Your task to perform on an android device: change alarm snooze length Image 0: 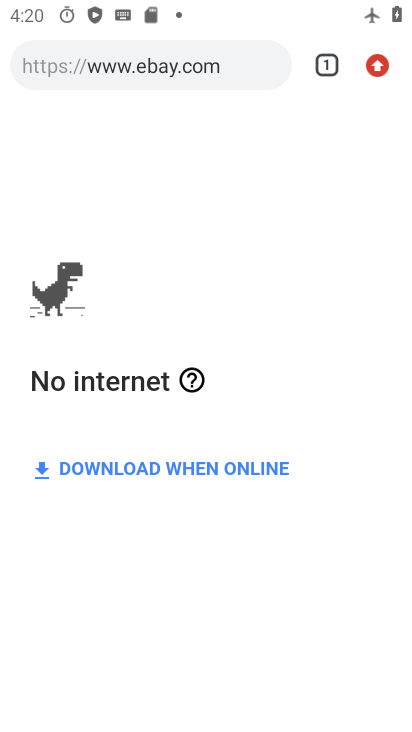
Step 0: press home button
Your task to perform on an android device: change alarm snooze length Image 1: 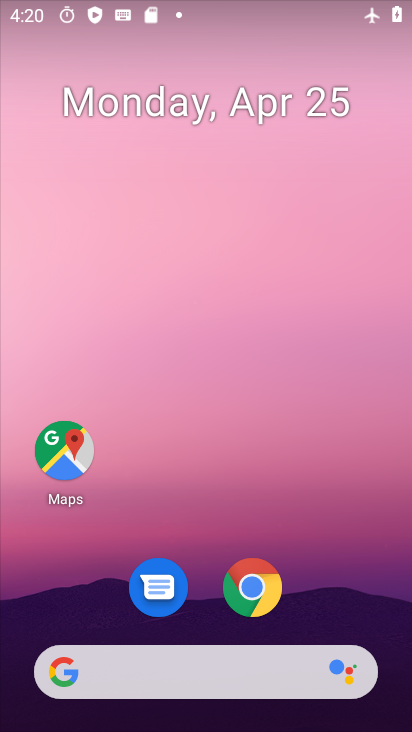
Step 1: drag from (332, 441) to (265, 27)
Your task to perform on an android device: change alarm snooze length Image 2: 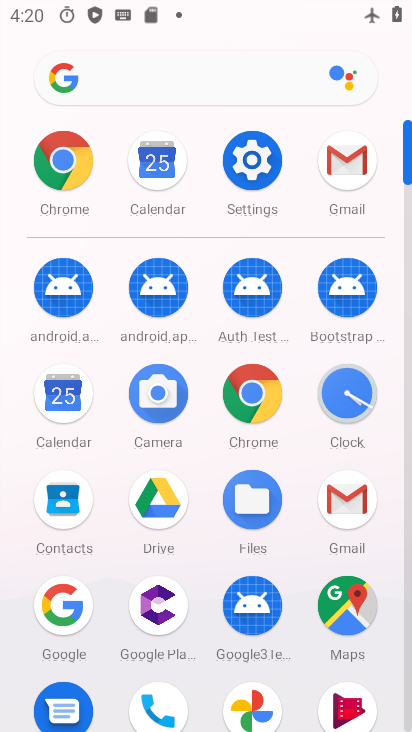
Step 2: click (353, 410)
Your task to perform on an android device: change alarm snooze length Image 3: 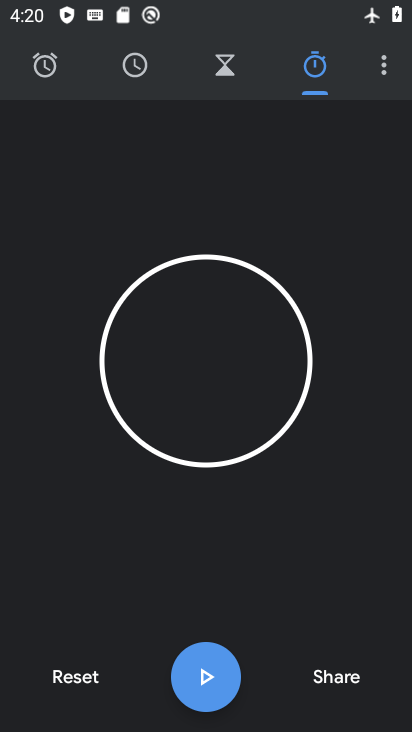
Step 3: click (382, 64)
Your task to perform on an android device: change alarm snooze length Image 4: 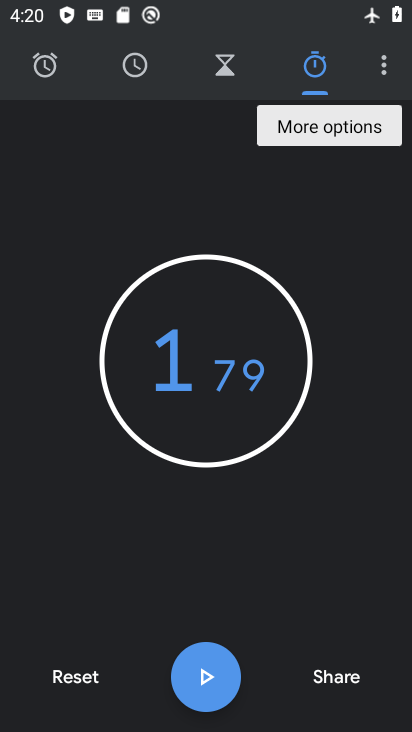
Step 4: click (377, 67)
Your task to perform on an android device: change alarm snooze length Image 5: 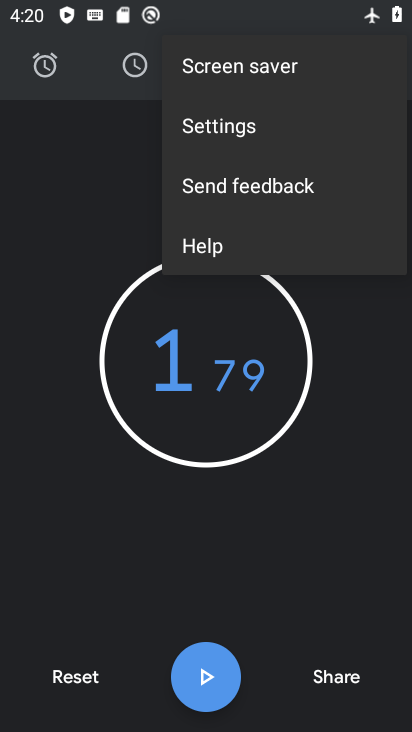
Step 5: click (279, 131)
Your task to perform on an android device: change alarm snooze length Image 6: 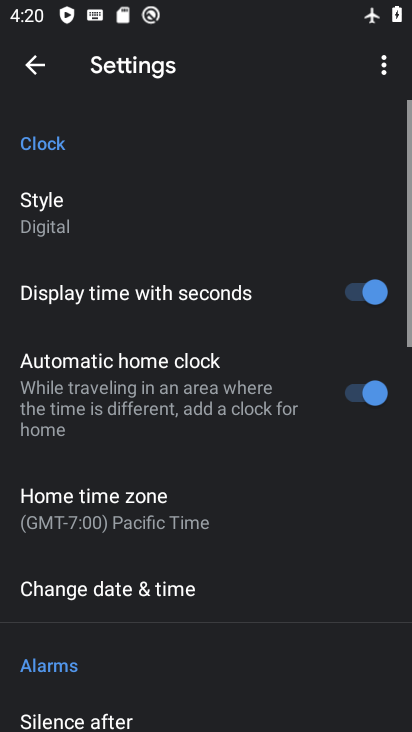
Step 6: drag from (185, 579) to (235, 28)
Your task to perform on an android device: change alarm snooze length Image 7: 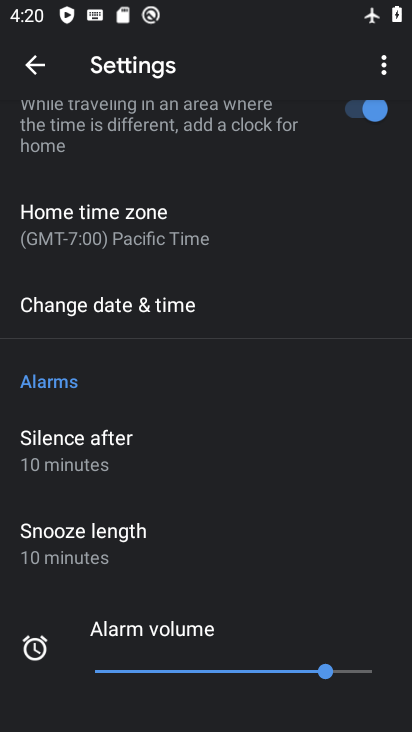
Step 7: click (88, 545)
Your task to perform on an android device: change alarm snooze length Image 8: 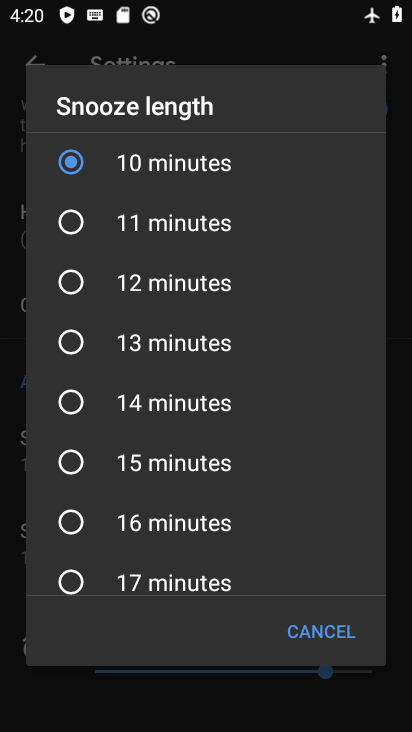
Step 8: click (159, 237)
Your task to perform on an android device: change alarm snooze length Image 9: 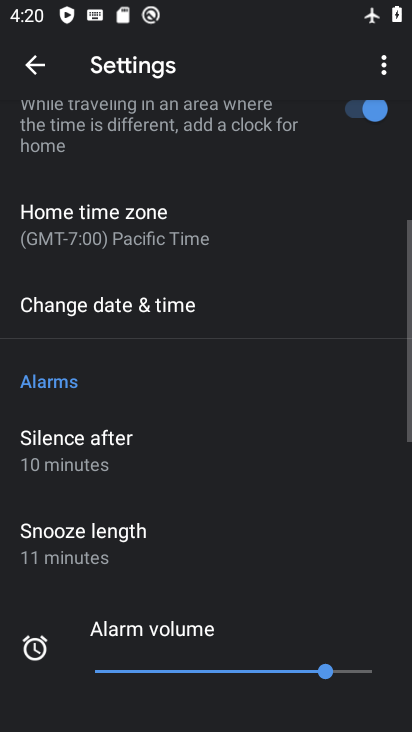
Step 9: task complete